Your task to perform on an android device: What's on my calendar today? Image 0: 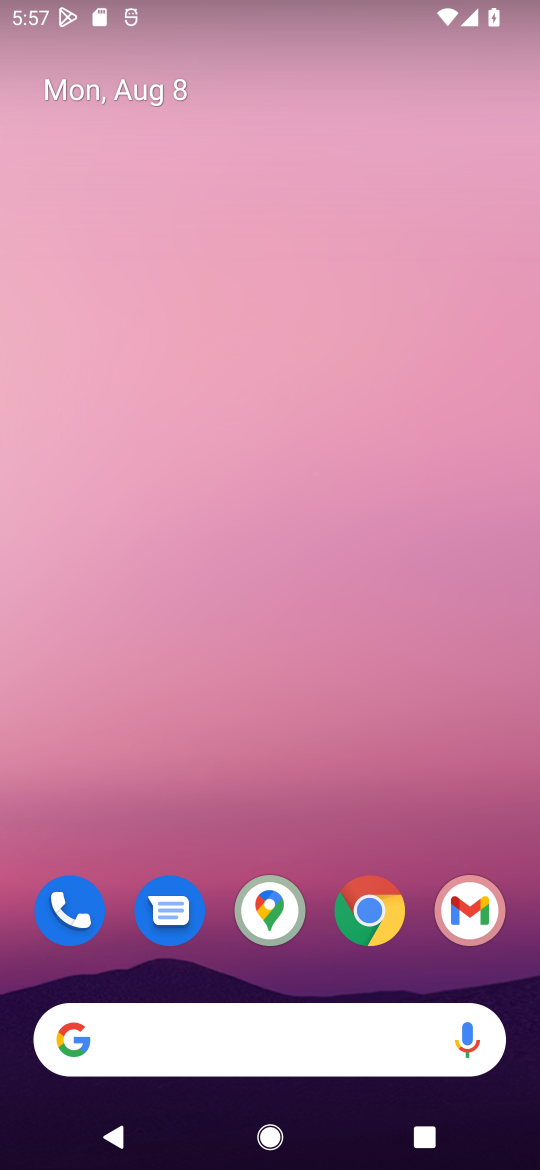
Step 0: drag from (228, 807) to (381, 131)
Your task to perform on an android device: What's on my calendar today? Image 1: 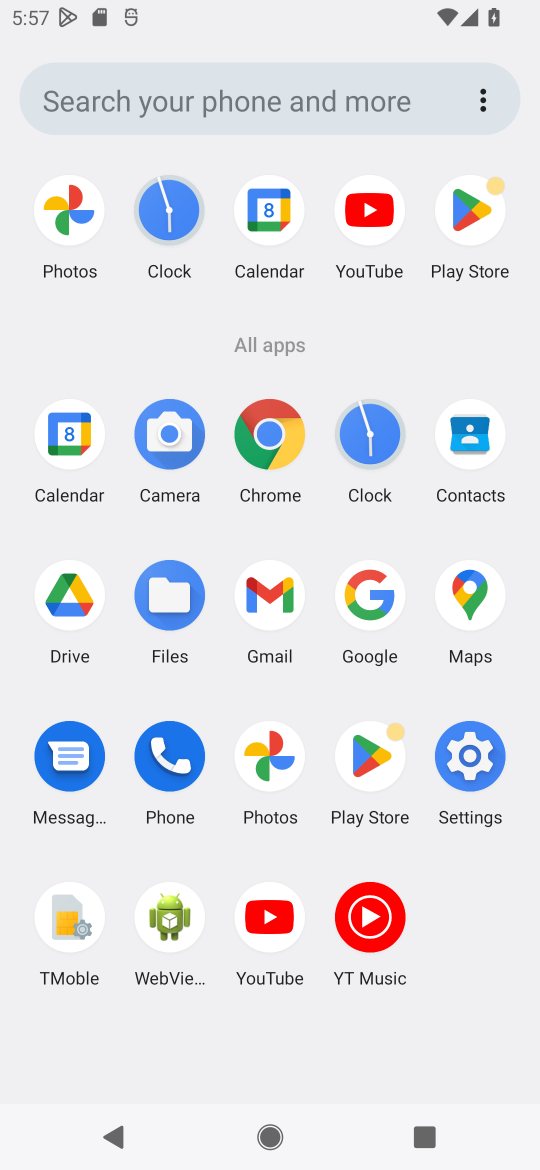
Step 1: click (77, 441)
Your task to perform on an android device: What's on my calendar today? Image 2: 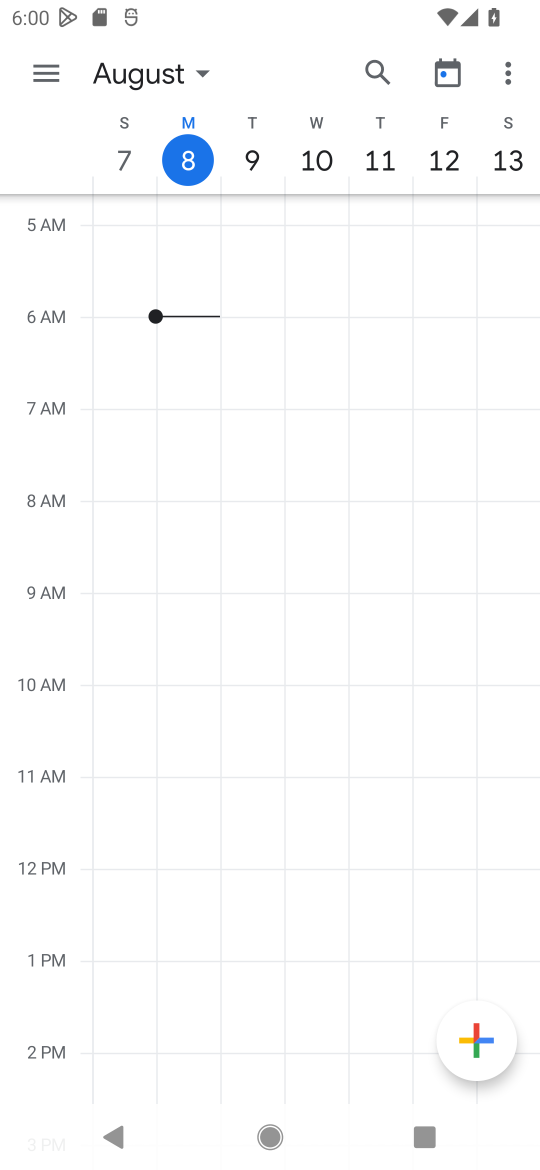
Step 2: task complete